Your task to perform on an android device: What's the weather going to be tomorrow? Image 0: 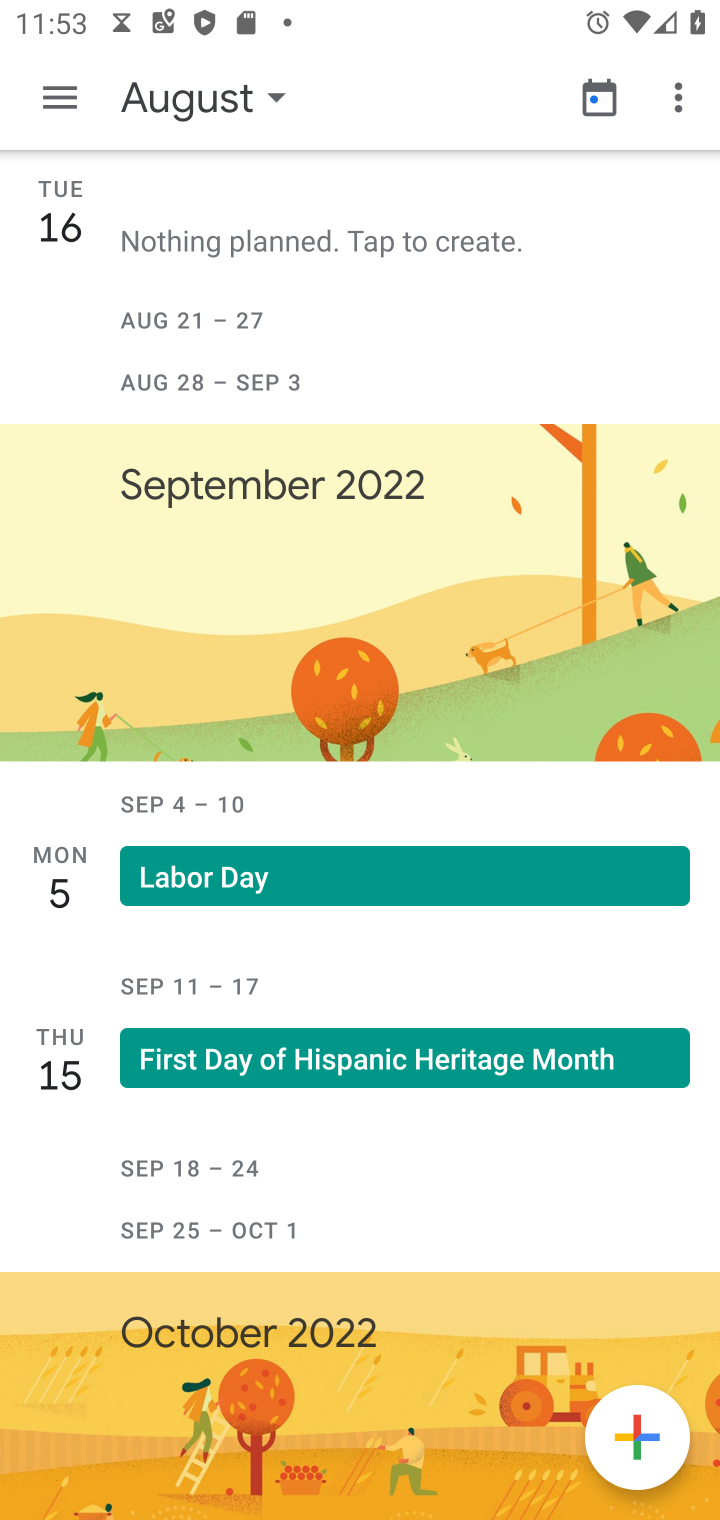
Step 0: press home button
Your task to perform on an android device: What's the weather going to be tomorrow? Image 1: 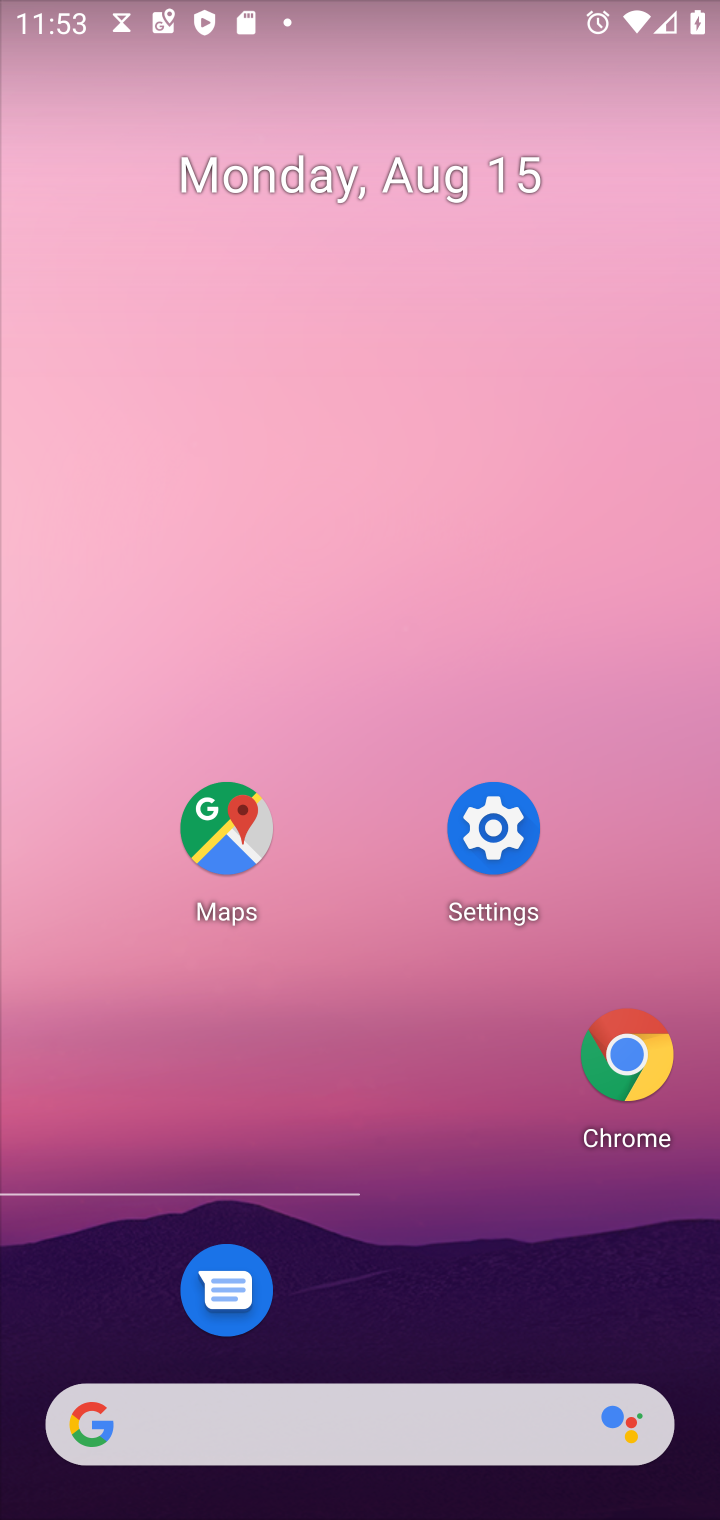
Step 1: click (276, 1424)
Your task to perform on an android device: What's the weather going to be tomorrow? Image 2: 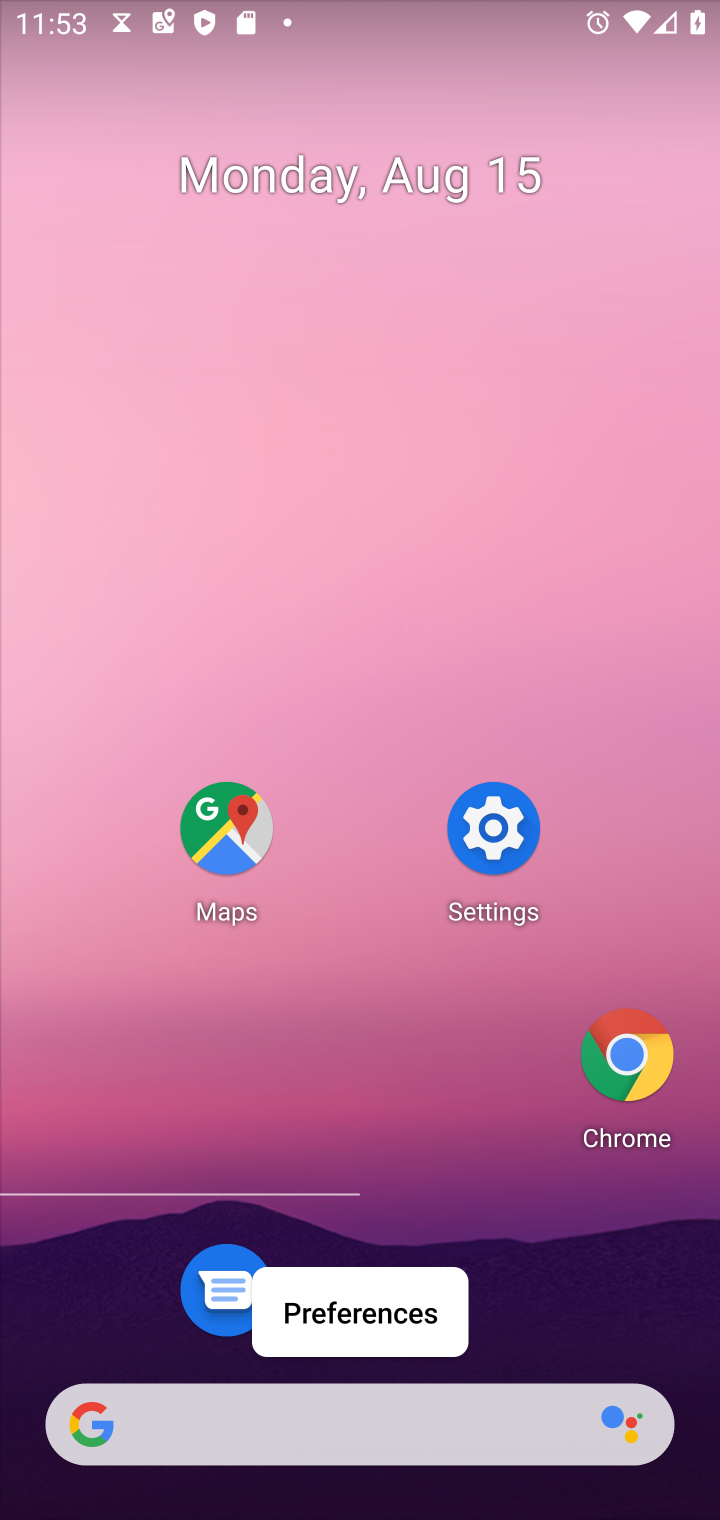
Step 2: click (302, 1424)
Your task to perform on an android device: What's the weather going to be tomorrow? Image 3: 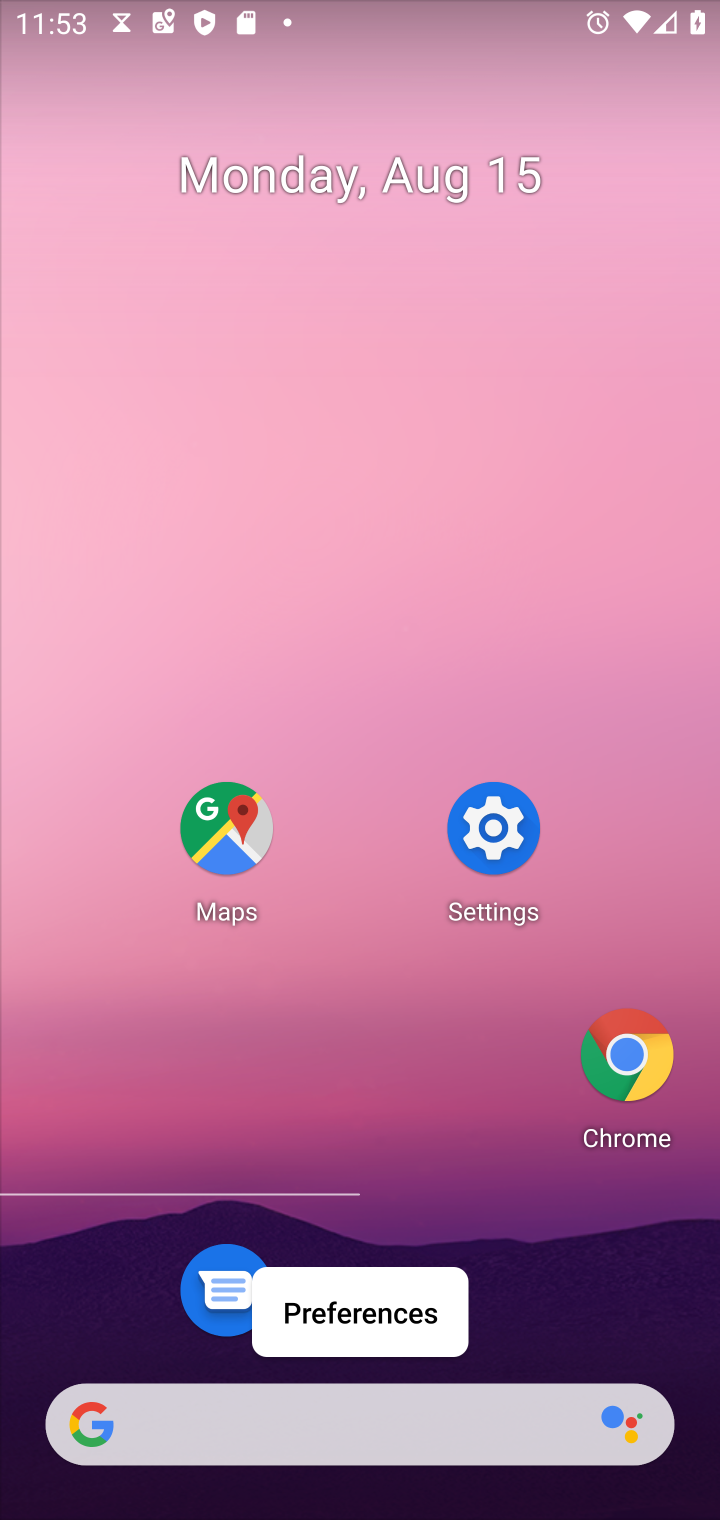
Step 3: click (249, 1391)
Your task to perform on an android device: What's the weather going to be tomorrow? Image 4: 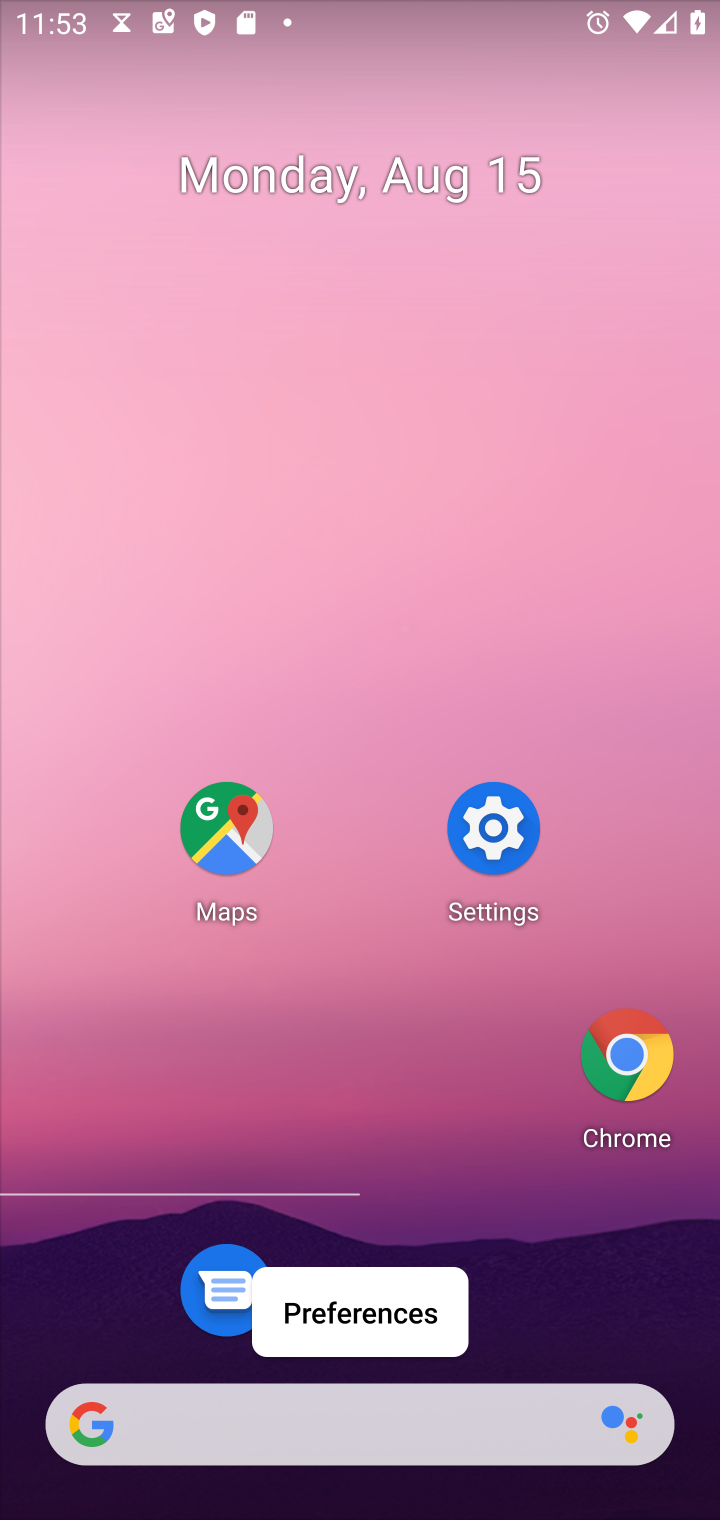
Step 4: click (208, 1418)
Your task to perform on an android device: What's the weather going to be tomorrow? Image 5: 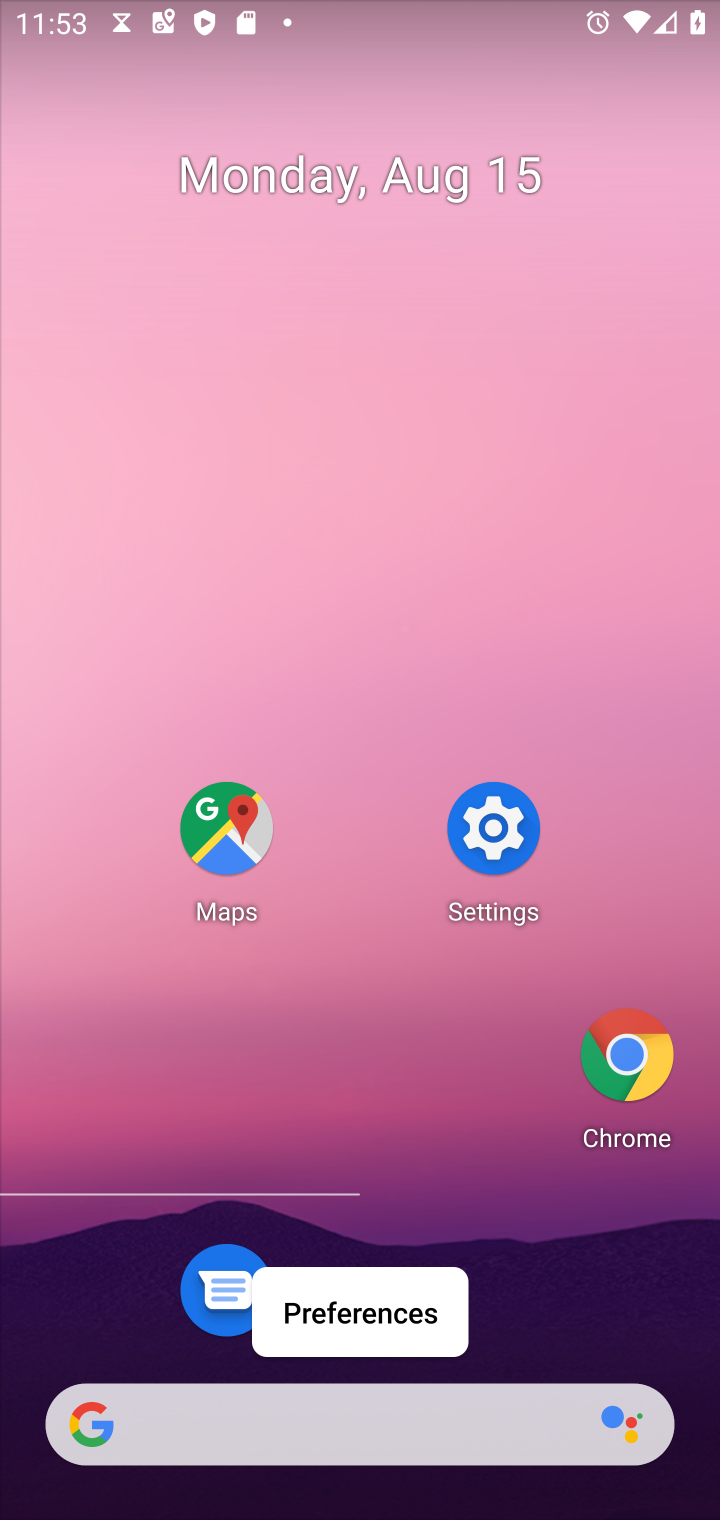
Step 5: click (330, 1420)
Your task to perform on an android device: What's the weather going to be tomorrow? Image 6: 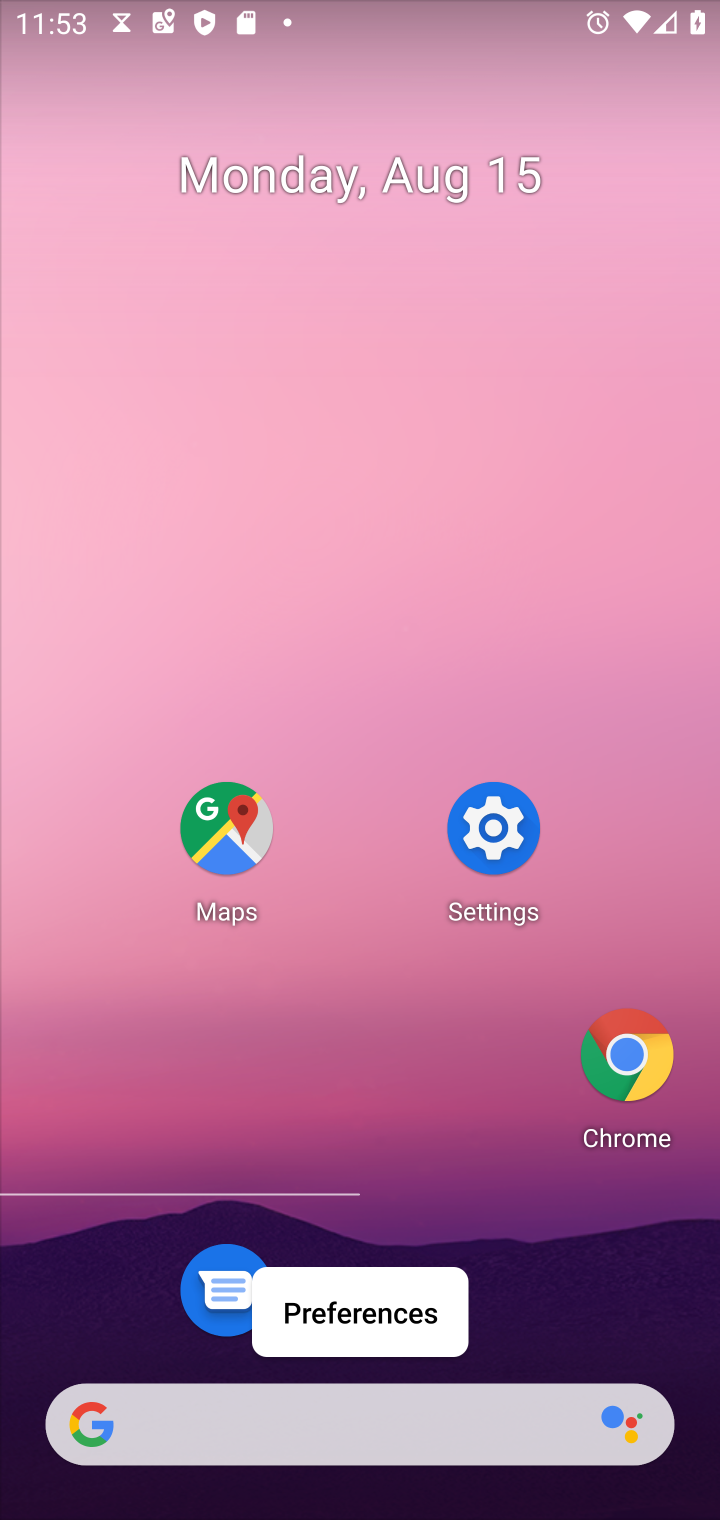
Step 6: click (355, 1416)
Your task to perform on an android device: What's the weather going to be tomorrow? Image 7: 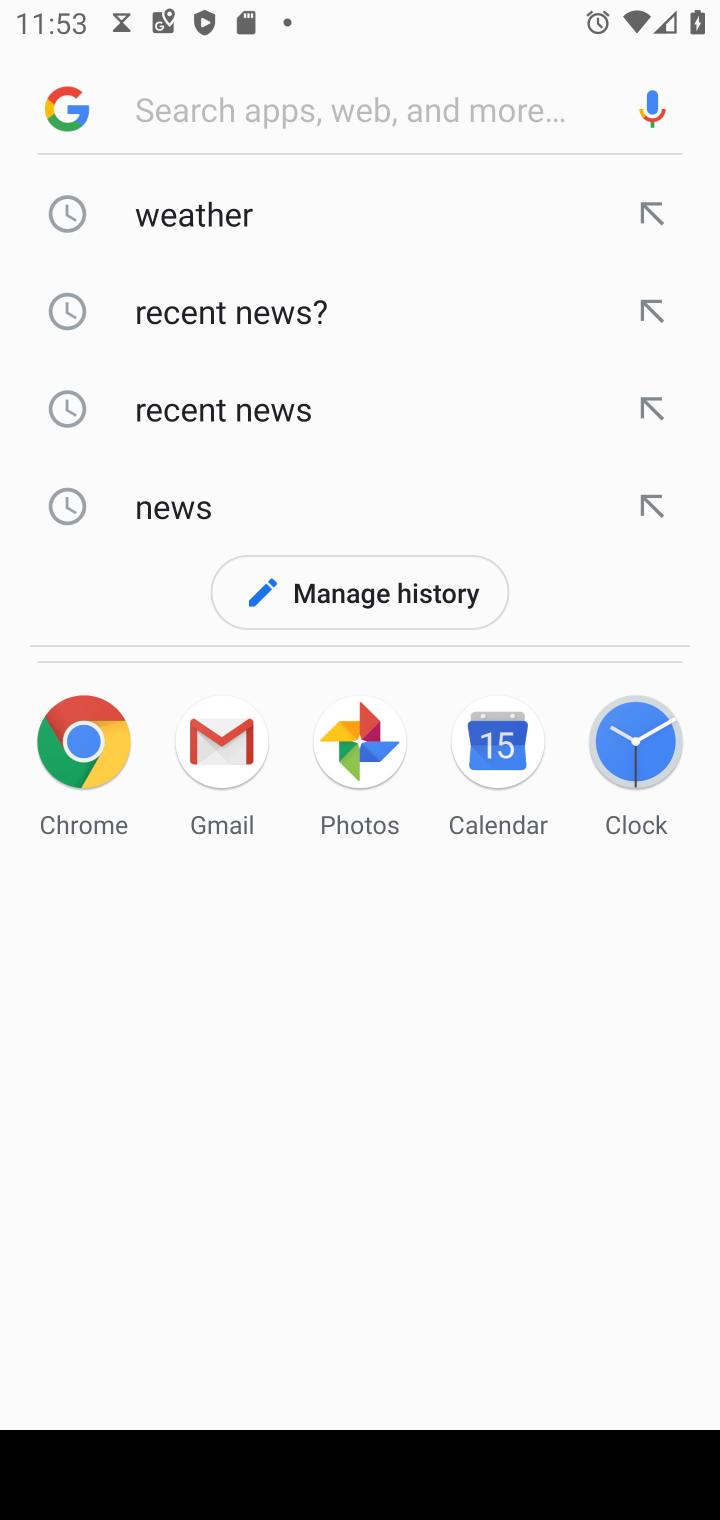
Step 7: click (131, 212)
Your task to perform on an android device: What's the weather going to be tomorrow? Image 8: 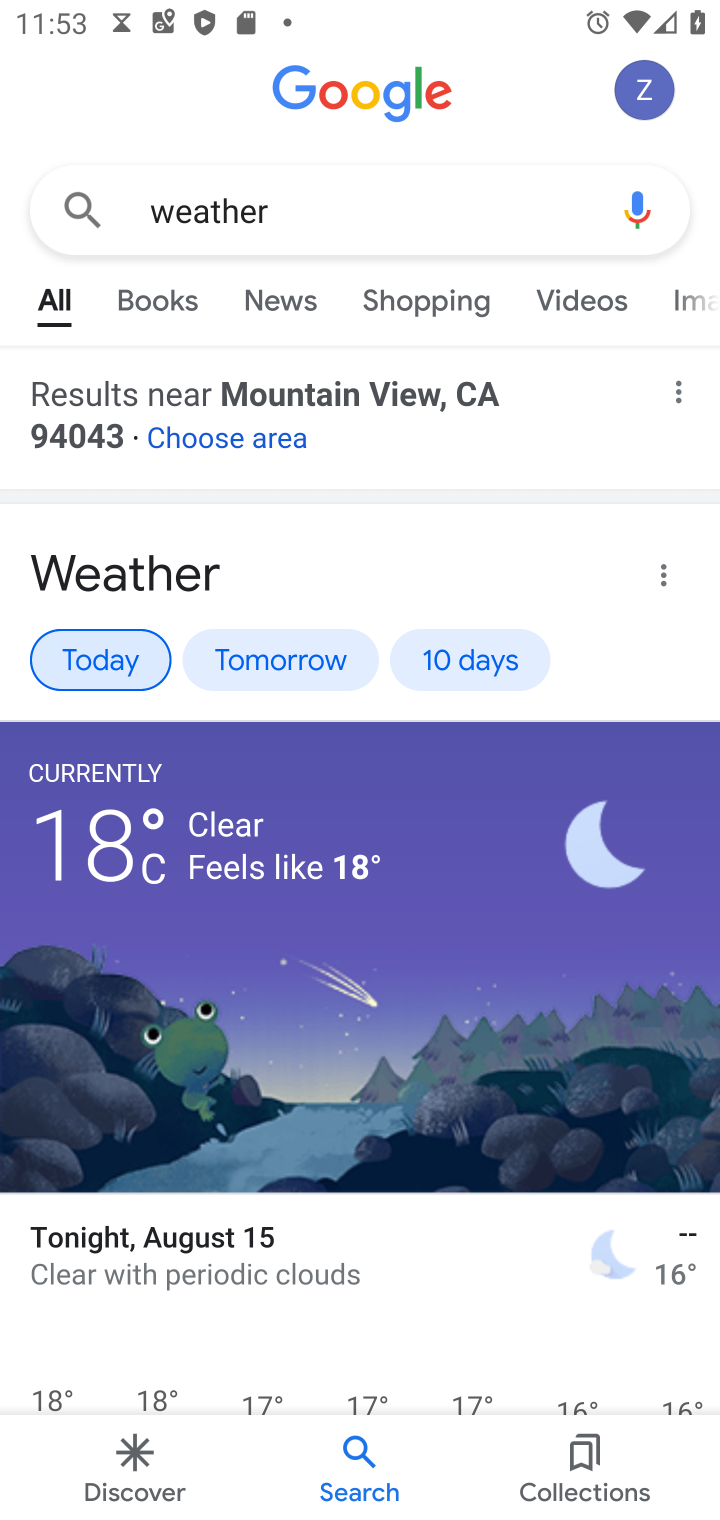
Step 8: click (269, 649)
Your task to perform on an android device: What's the weather going to be tomorrow? Image 9: 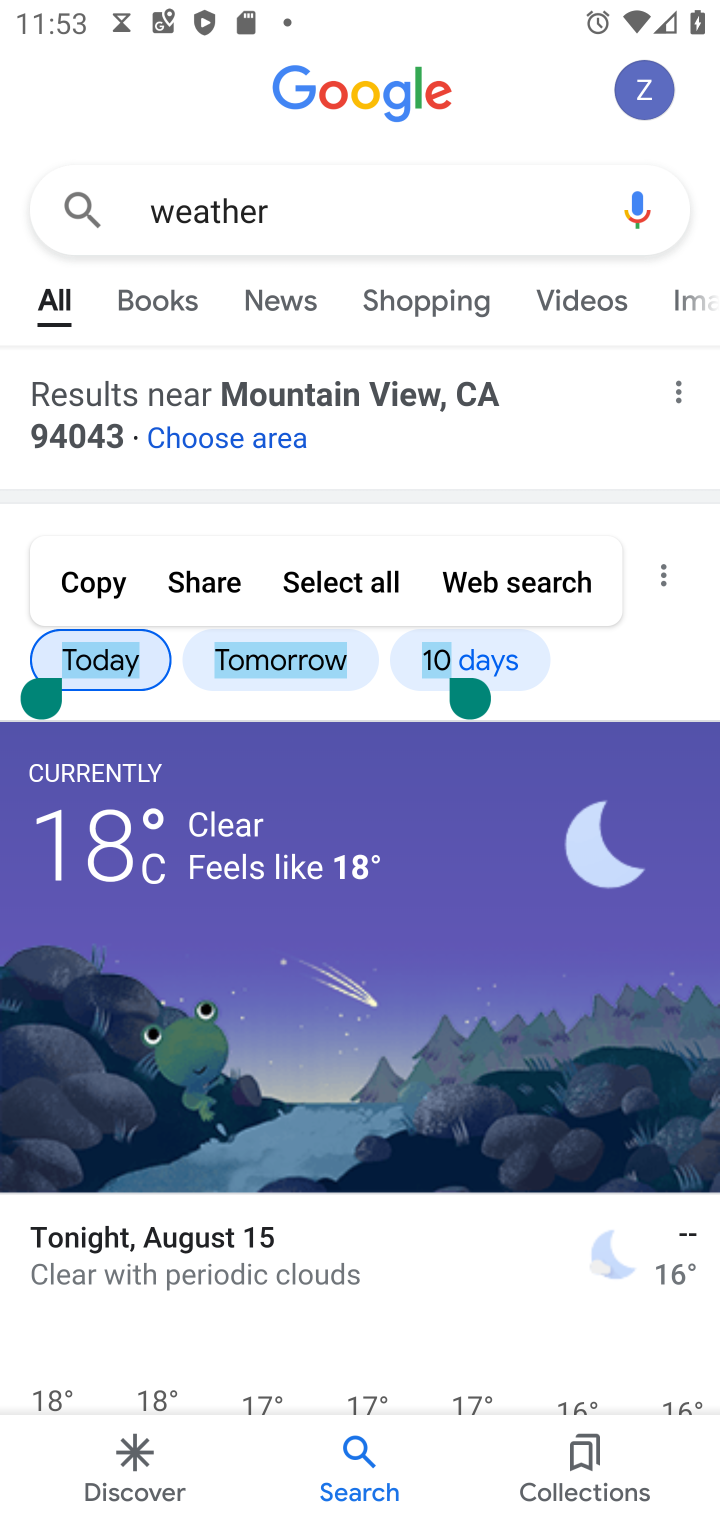
Step 9: click (289, 671)
Your task to perform on an android device: What's the weather going to be tomorrow? Image 10: 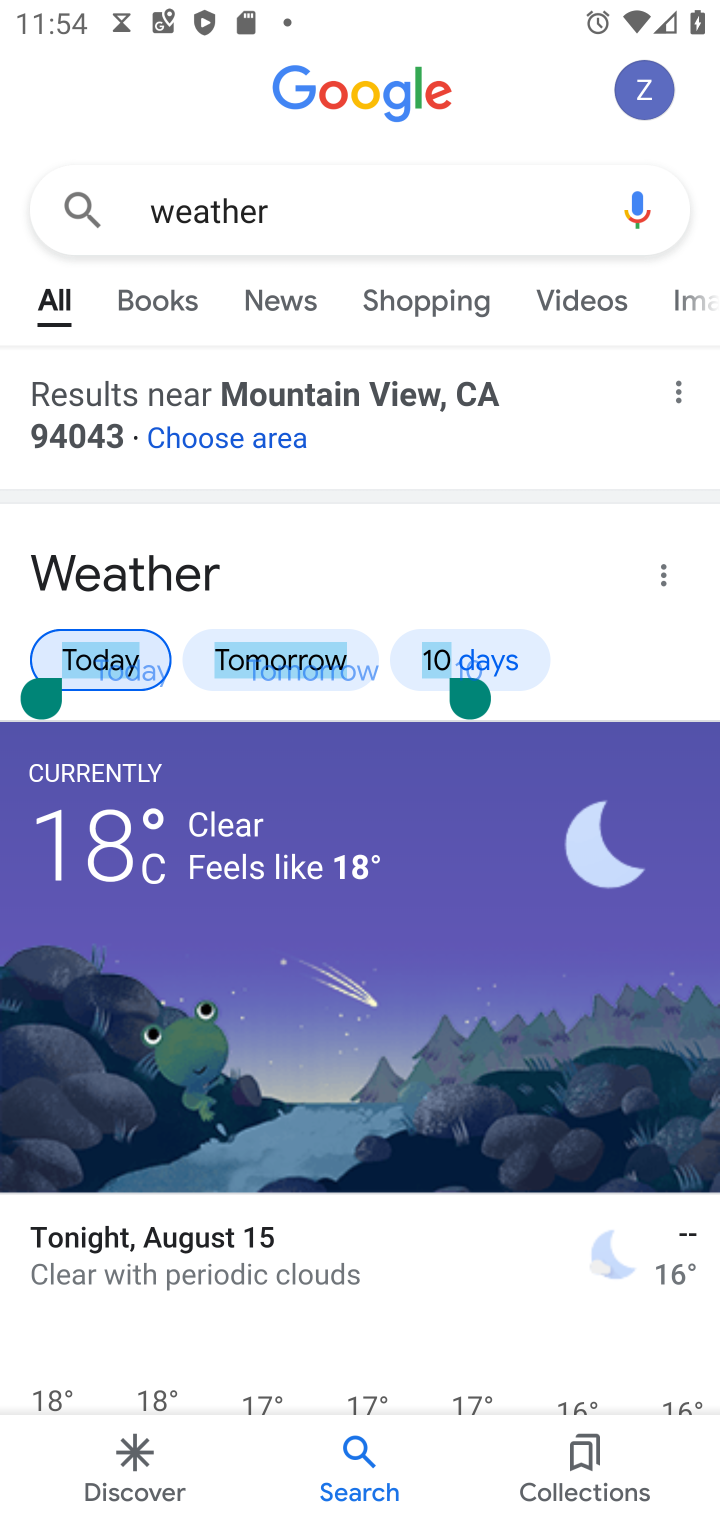
Step 10: click (285, 657)
Your task to perform on an android device: What's the weather going to be tomorrow? Image 11: 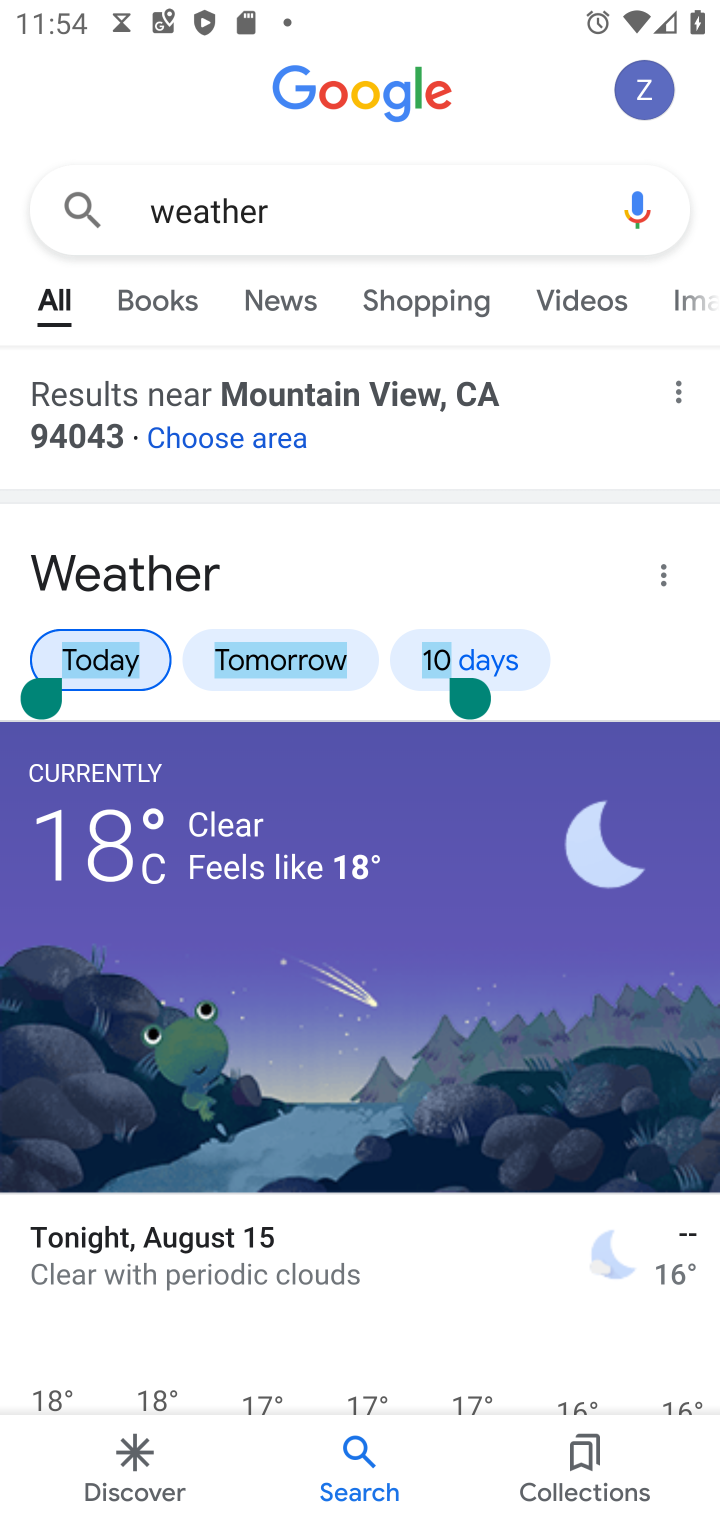
Step 11: click (344, 572)
Your task to perform on an android device: What's the weather going to be tomorrow? Image 12: 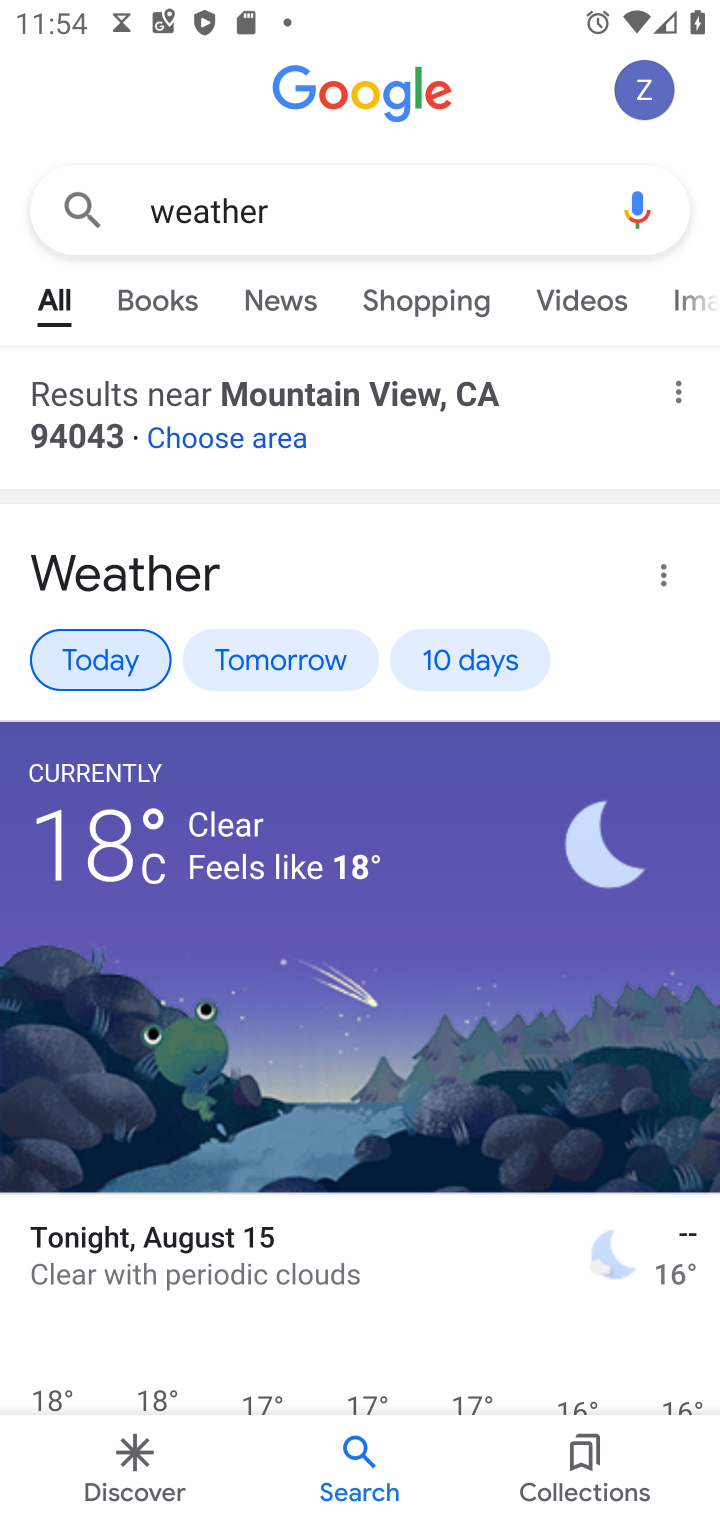
Step 12: click (282, 650)
Your task to perform on an android device: What's the weather going to be tomorrow? Image 13: 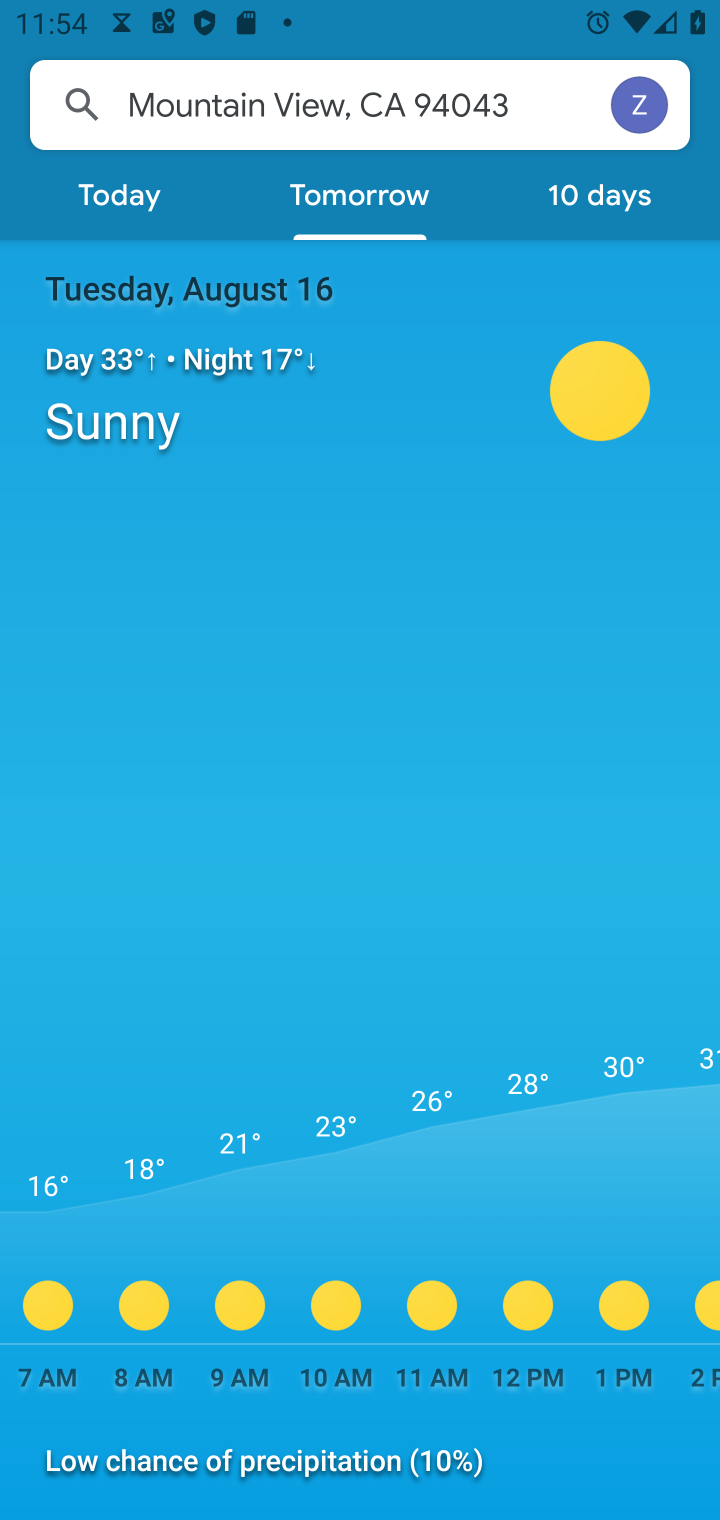
Step 13: task complete